Your task to perform on an android device: remove spam from my inbox in the gmail app Image 0: 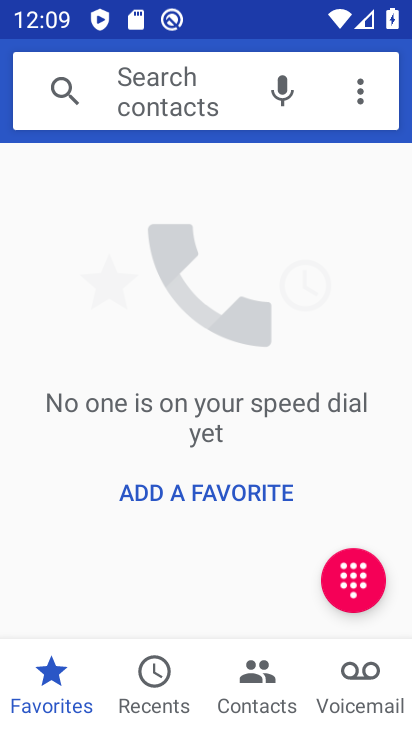
Step 0: press back button
Your task to perform on an android device: remove spam from my inbox in the gmail app Image 1: 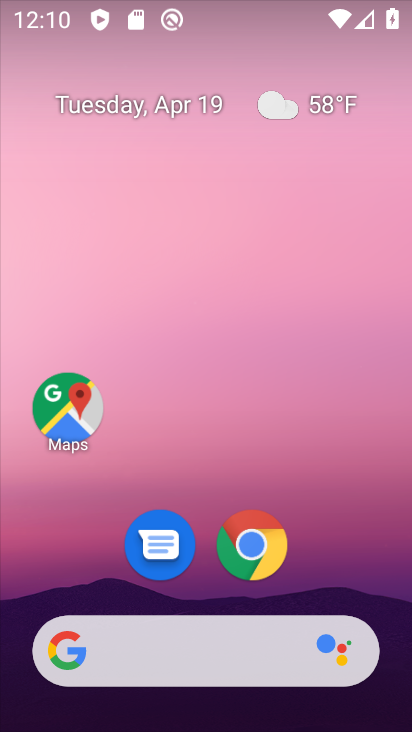
Step 1: drag from (209, 508) to (298, 29)
Your task to perform on an android device: remove spam from my inbox in the gmail app Image 2: 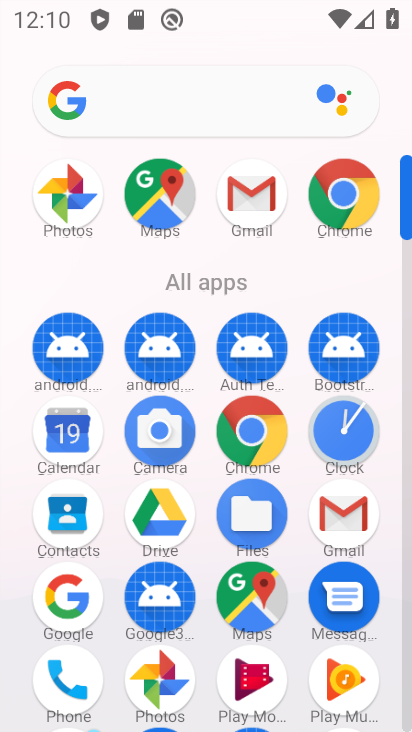
Step 2: click (264, 180)
Your task to perform on an android device: remove spam from my inbox in the gmail app Image 3: 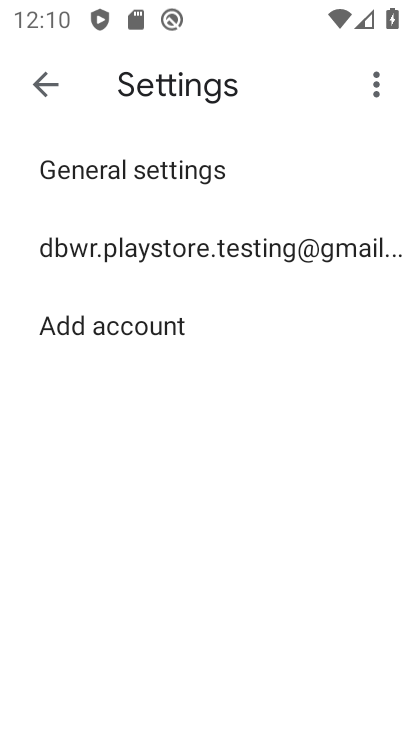
Step 3: click (180, 242)
Your task to perform on an android device: remove spam from my inbox in the gmail app Image 4: 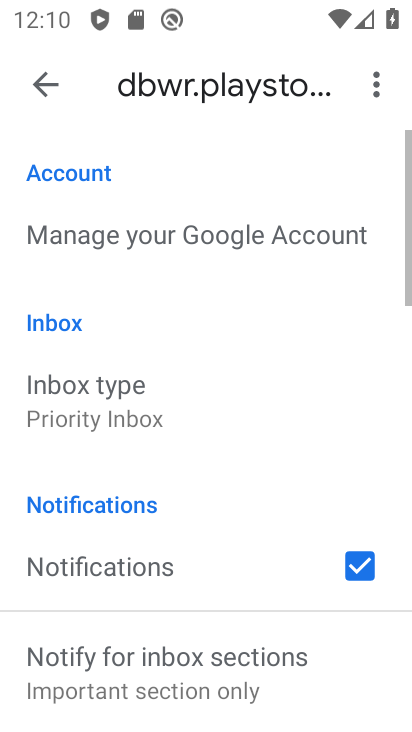
Step 4: click (49, 87)
Your task to perform on an android device: remove spam from my inbox in the gmail app Image 5: 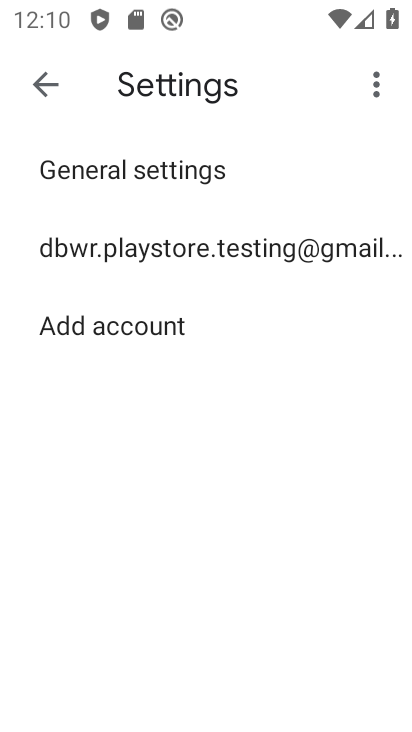
Step 5: click (49, 87)
Your task to perform on an android device: remove spam from my inbox in the gmail app Image 6: 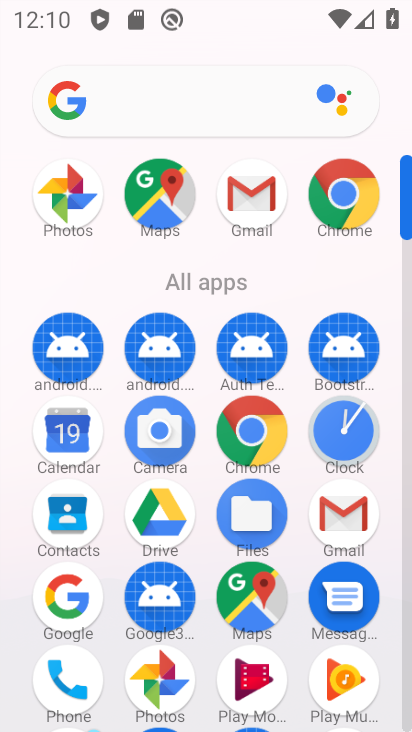
Step 6: click (253, 194)
Your task to perform on an android device: remove spam from my inbox in the gmail app Image 7: 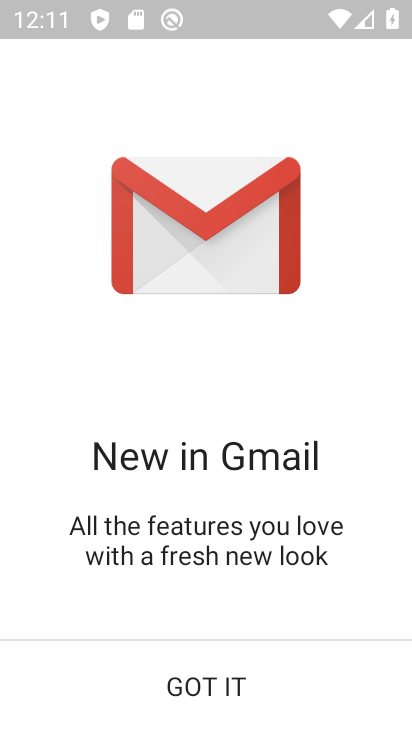
Step 7: click (227, 690)
Your task to perform on an android device: remove spam from my inbox in the gmail app Image 8: 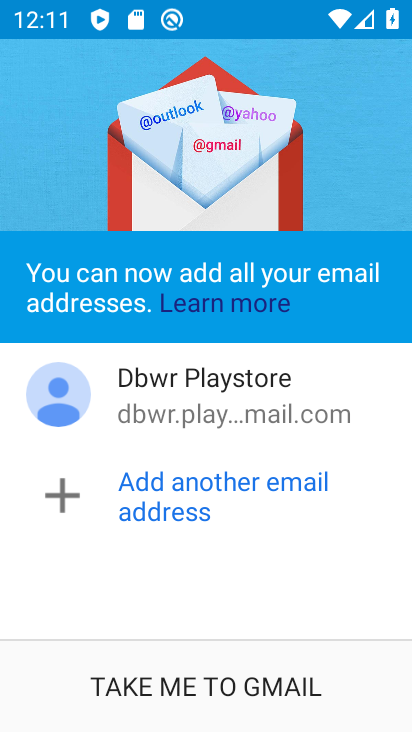
Step 8: click (205, 684)
Your task to perform on an android device: remove spam from my inbox in the gmail app Image 9: 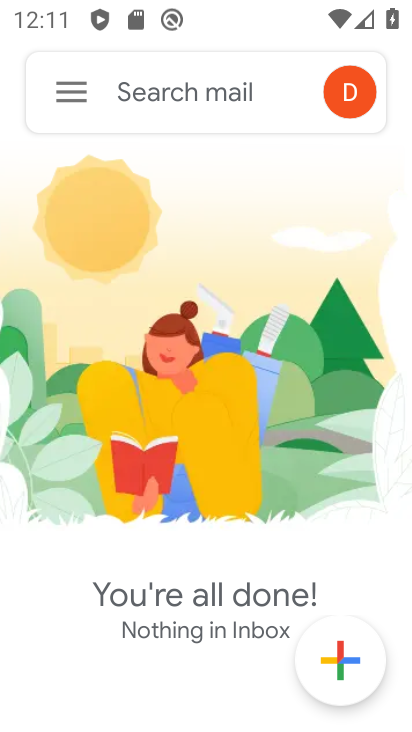
Step 9: click (72, 89)
Your task to perform on an android device: remove spam from my inbox in the gmail app Image 10: 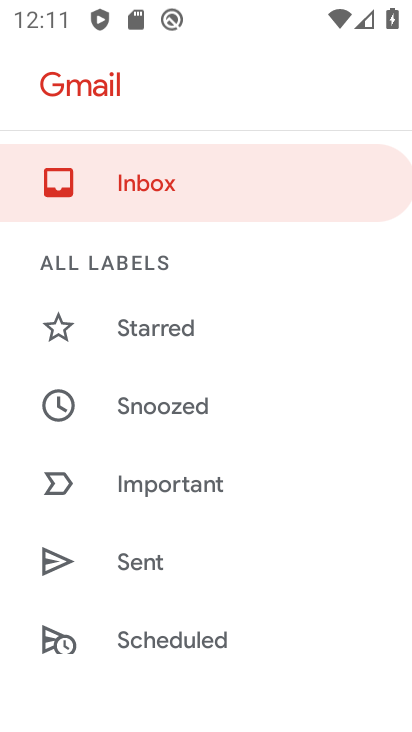
Step 10: drag from (187, 599) to (299, 0)
Your task to perform on an android device: remove spam from my inbox in the gmail app Image 11: 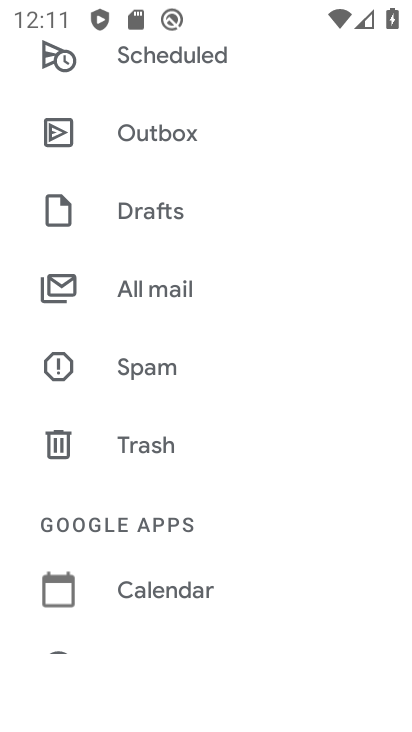
Step 11: click (158, 369)
Your task to perform on an android device: remove spam from my inbox in the gmail app Image 12: 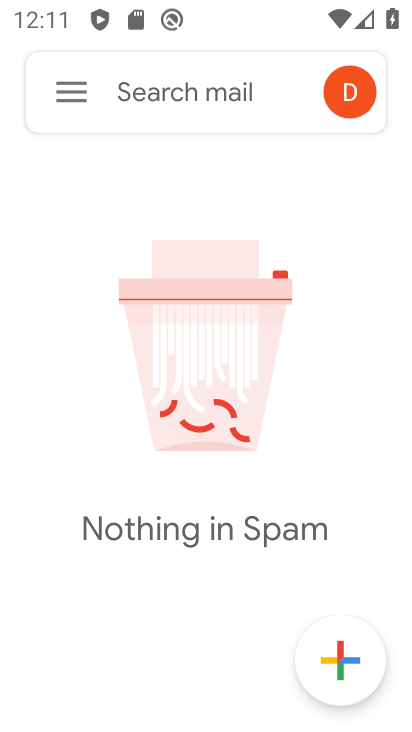
Step 12: task complete